Your task to perform on an android device: turn off location Image 0: 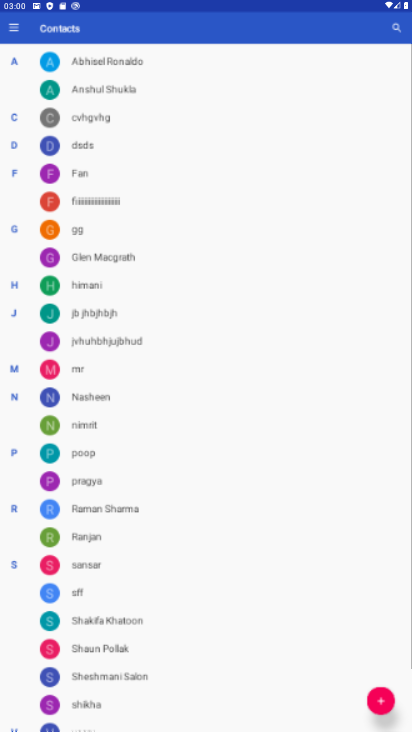
Step 0: drag from (293, 631) to (275, 139)
Your task to perform on an android device: turn off location Image 1: 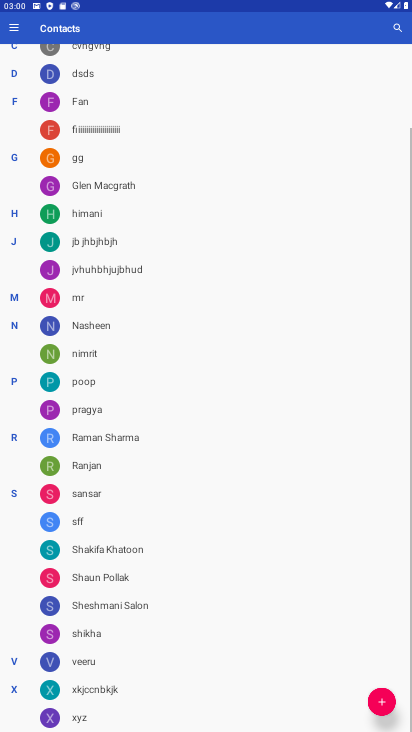
Step 1: press home button
Your task to perform on an android device: turn off location Image 2: 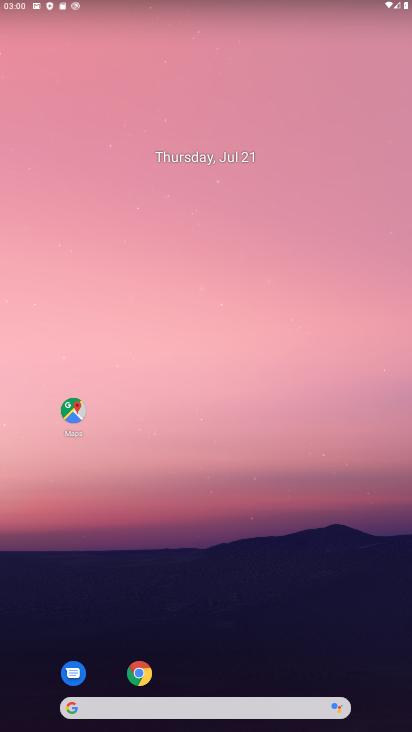
Step 2: drag from (267, 494) to (214, 76)
Your task to perform on an android device: turn off location Image 3: 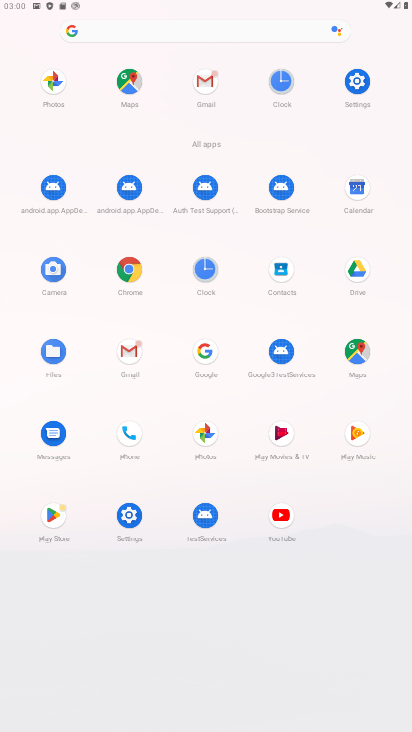
Step 3: click (356, 87)
Your task to perform on an android device: turn off location Image 4: 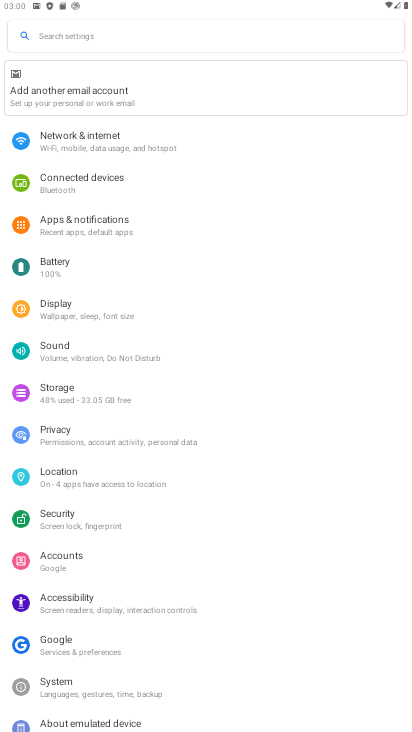
Step 4: click (86, 487)
Your task to perform on an android device: turn off location Image 5: 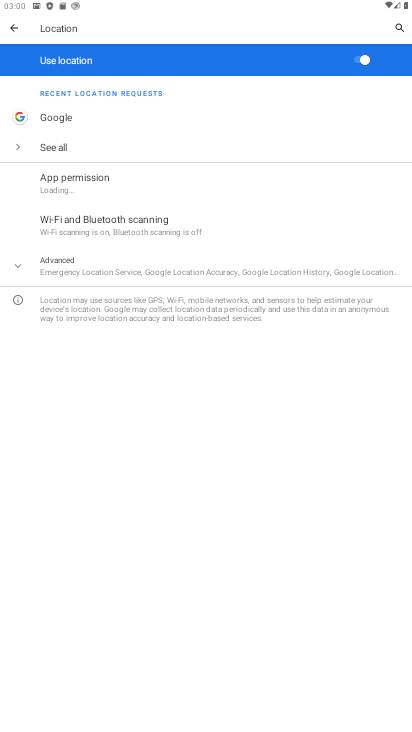
Step 5: click (360, 58)
Your task to perform on an android device: turn off location Image 6: 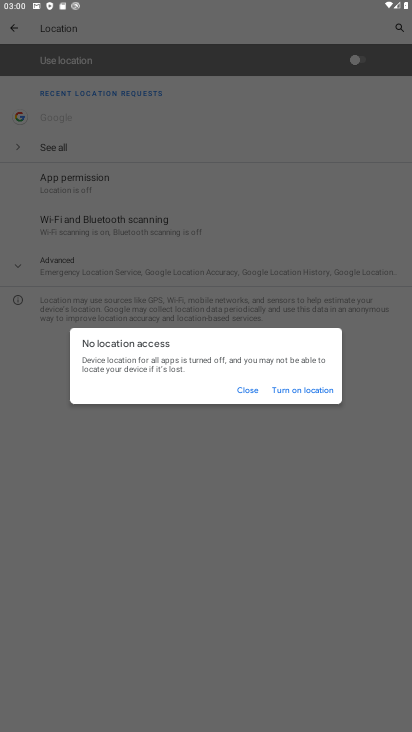
Step 6: task complete